Your task to perform on an android device: check android version Image 0: 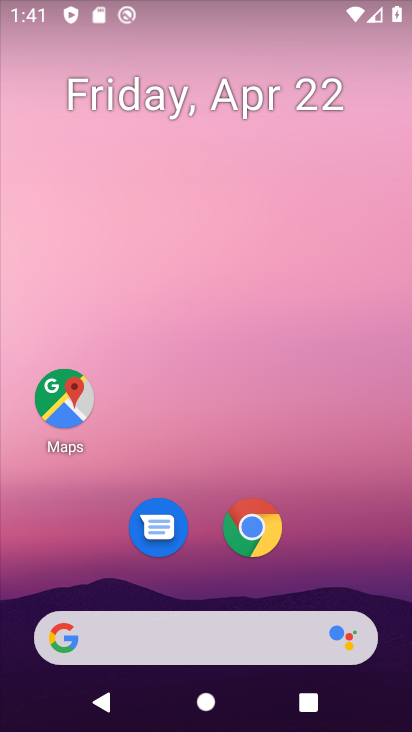
Step 0: drag from (319, 560) to (411, 431)
Your task to perform on an android device: check android version Image 1: 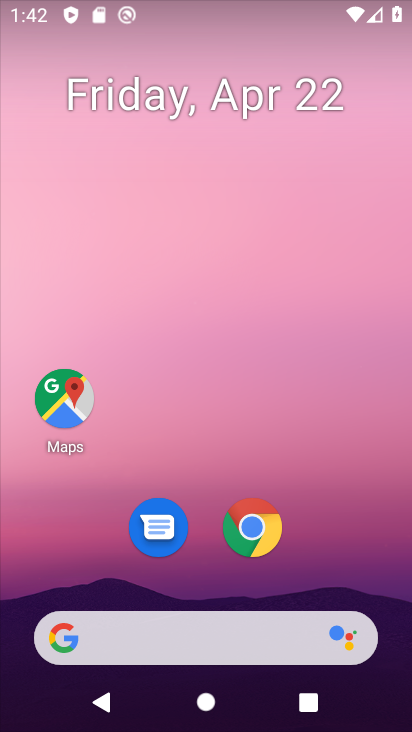
Step 1: drag from (333, 569) to (243, 301)
Your task to perform on an android device: check android version Image 2: 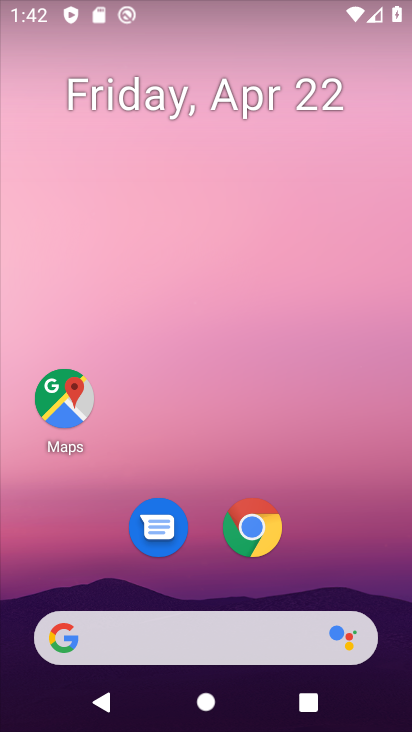
Step 2: drag from (269, 253) to (200, 5)
Your task to perform on an android device: check android version Image 3: 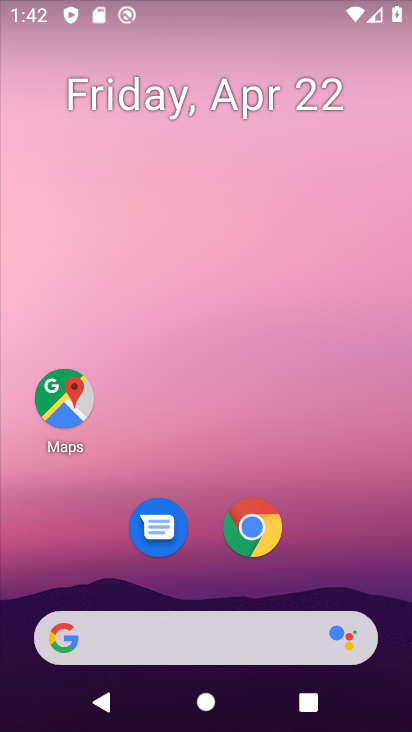
Step 3: drag from (325, 444) to (251, 177)
Your task to perform on an android device: check android version Image 4: 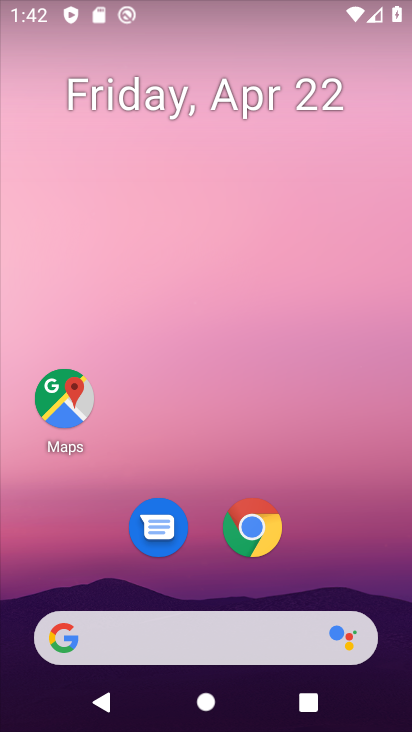
Step 4: drag from (330, 439) to (280, 9)
Your task to perform on an android device: check android version Image 5: 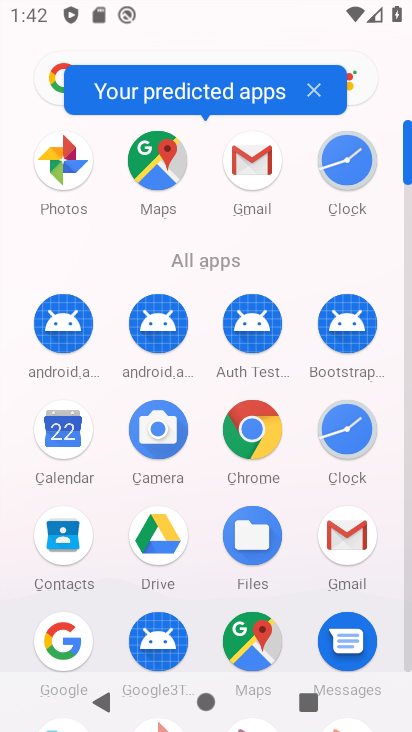
Step 5: click (407, 379)
Your task to perform on an android device: check android version Image 6: 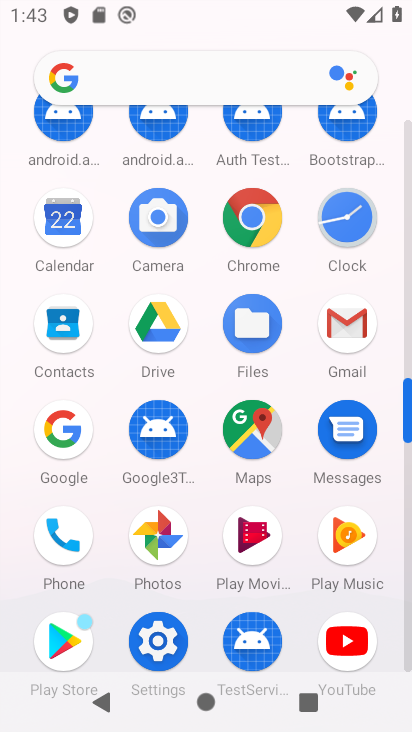
Step 6: click (173, 640)
Your task to perform on an android device: check android version Image 7: 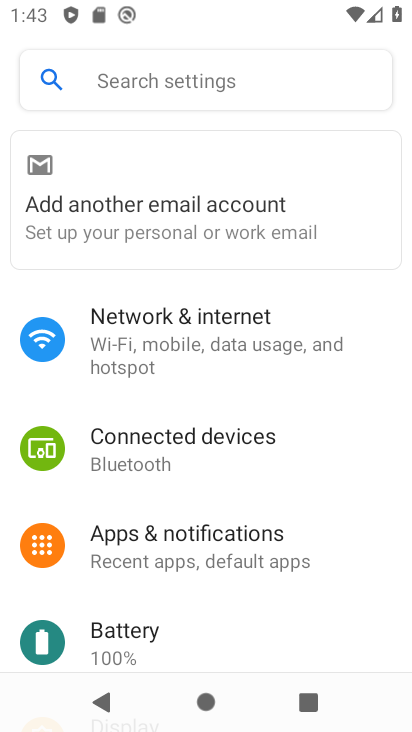
Step 7: drag from (234, 557) to (211, 146)
Your task to perform on an android device: check android version Image 8: 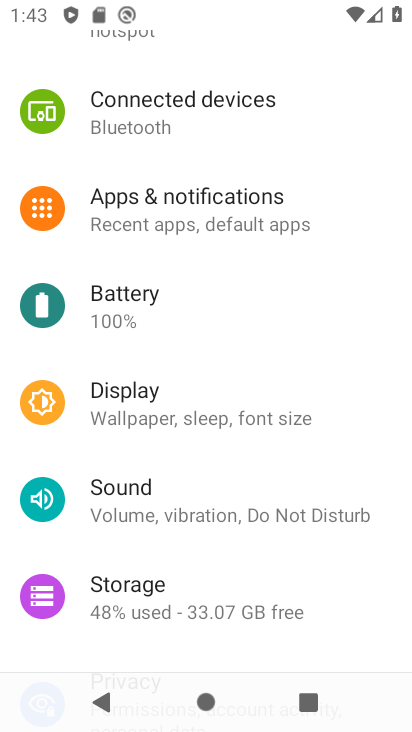
Step 8: drag from (250, 660) to (216, 336)
Your task to perform on an android device: check android version Image 9: 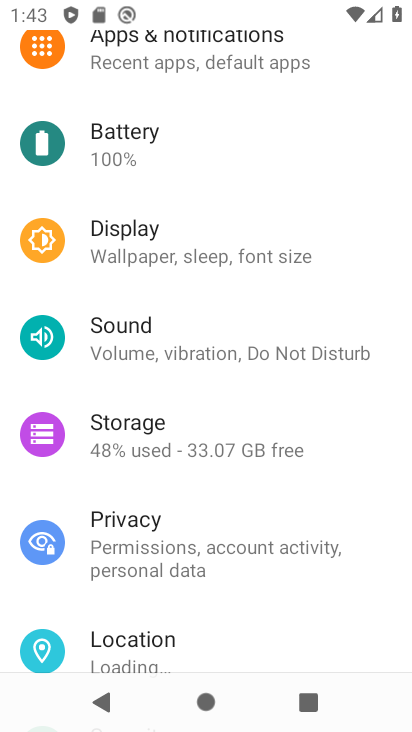
Step 9: drag from (273, 617) to (126, 8)
Your task to perform on an android device: check android version Image 10: 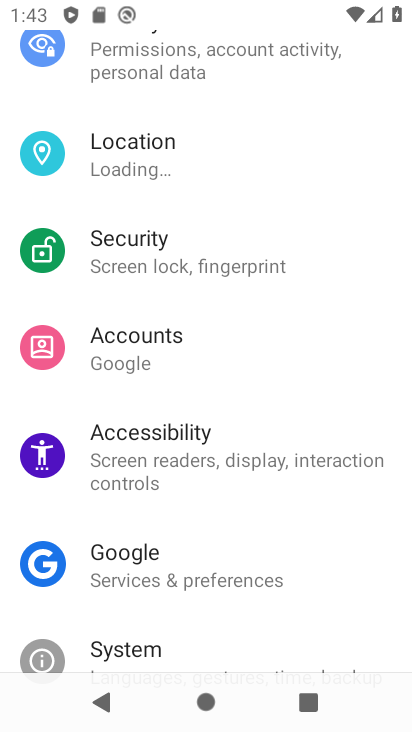
Step 10: drag from (184, 544) to (186, 236)
Your task to perform on an android device: check android version Image 11: 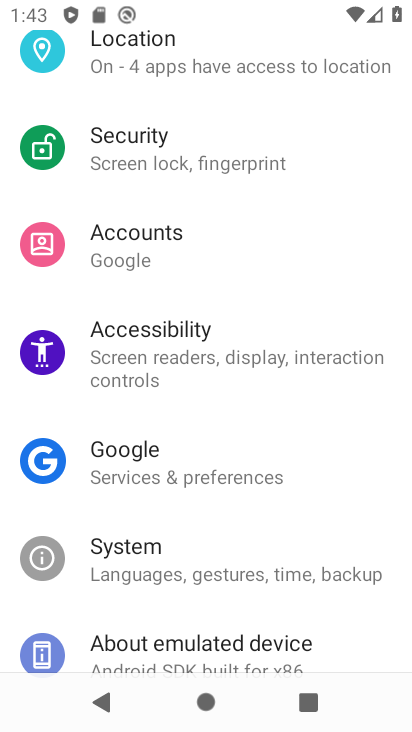
Step 11: click (169, 654)
Your task to perform on an android device: check android version Image 12: 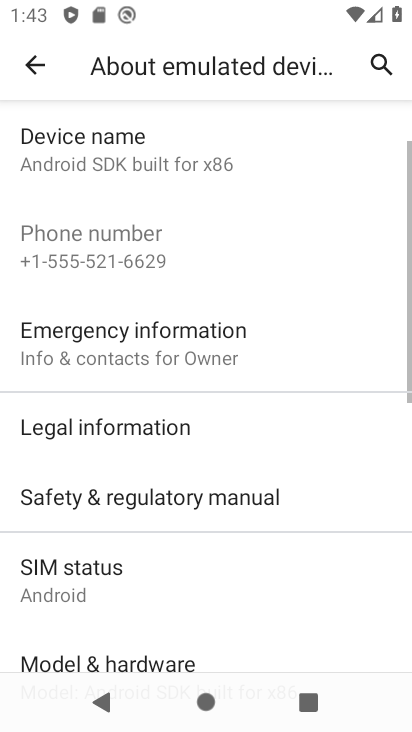
Step 12: drag from (212, 613) to (175, 64)
Your task to perform on an android device: check android version Image 13: 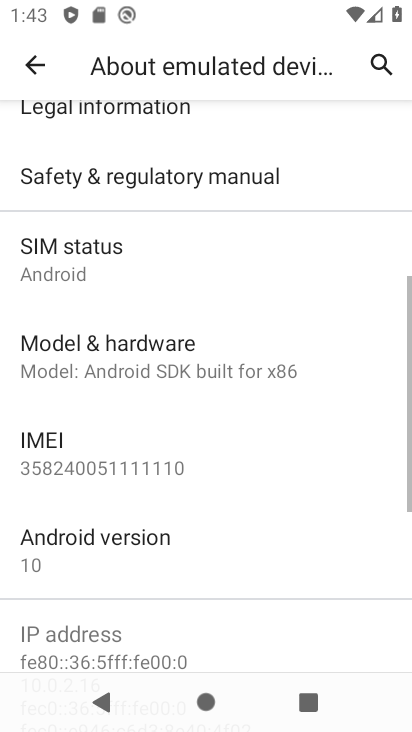
Step 13: drag from (221, 366) to (210, 233)
Your task to perform on an android device: check android version Image 14: 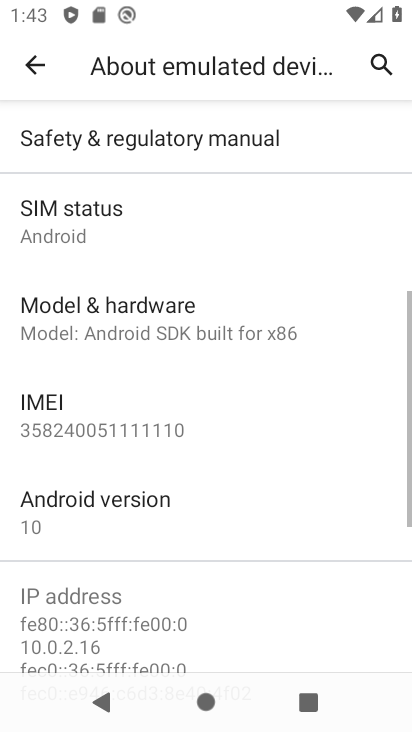
Step 14: click (173, 546)
Your task to perform on an android device: check android version Image 15: 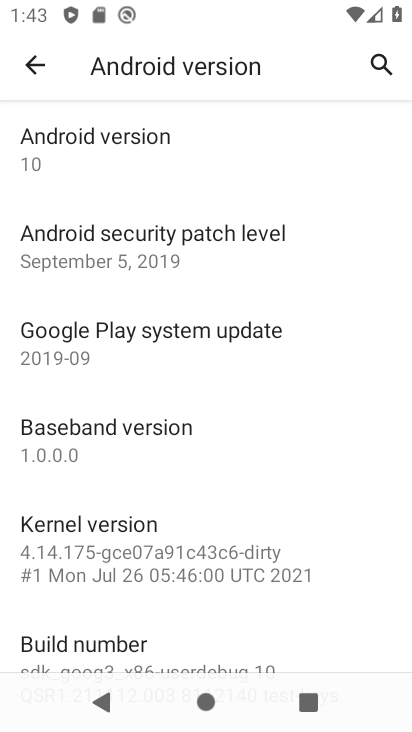
Step 15: click (115, 125)
Your task to perform on an android device: check android version Image 16: 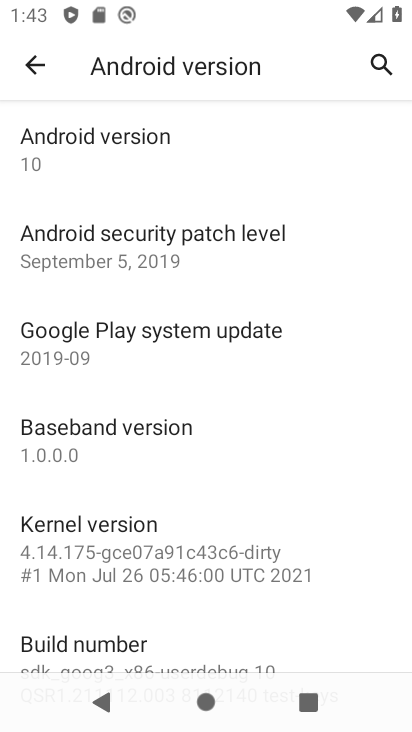
Step 16: task complete